Your task to perform on an android device: change notification settings in the gmail app Image 0: 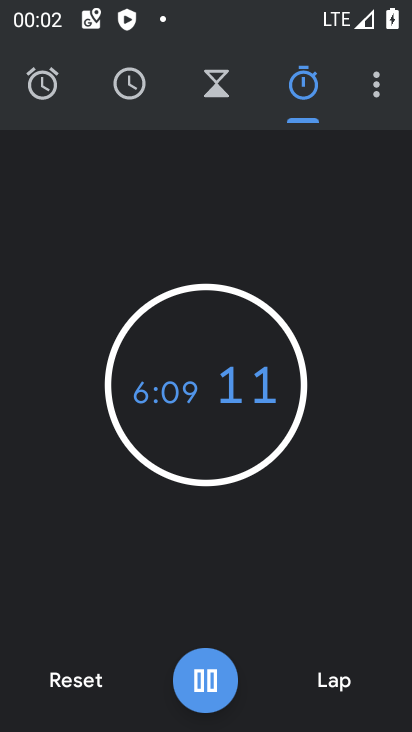
Step 0: press home button
Your task to perform on an android device: change notification settings in the gmail app Image 1: 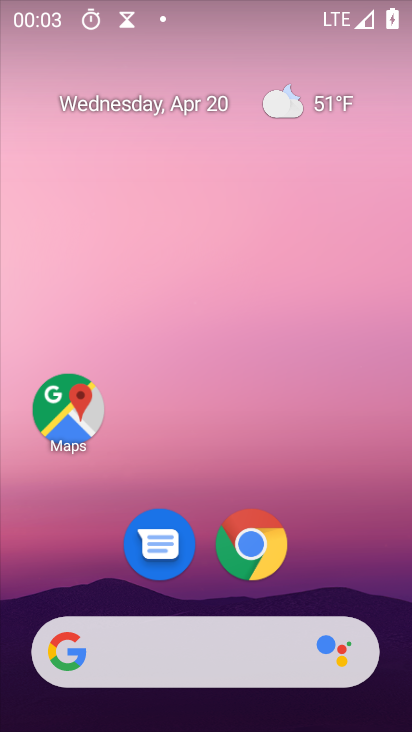
Step 1: drag from (313, 584) to (295, 138)
Your task to perform on an android device: change notification settings in the gmail app Image 2: 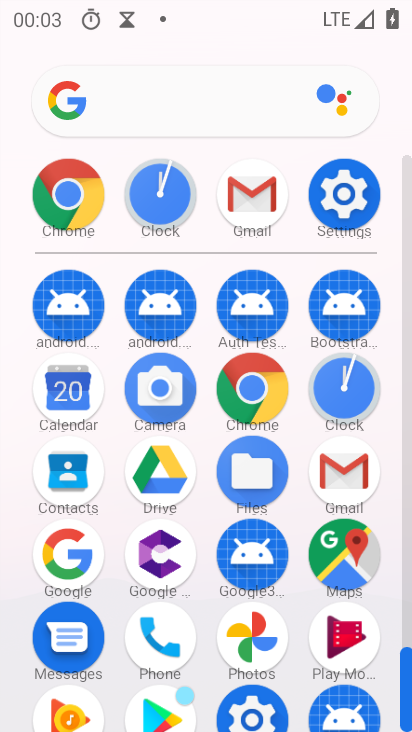
Step 2: click (338, 486)
Your task to perform on an android device: change notification settings in the gmail app Image 3: 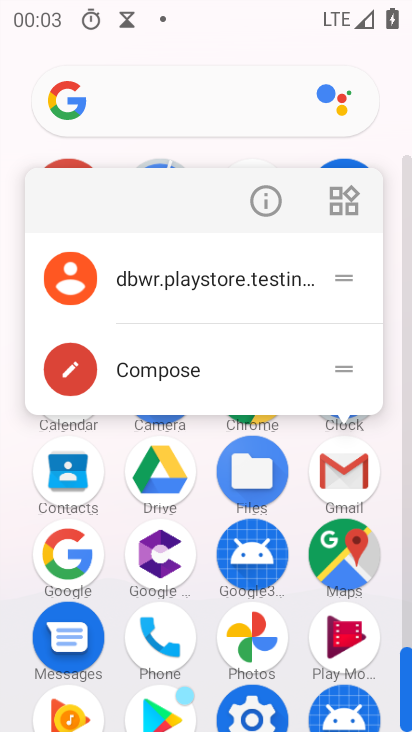
Step 3: click (339, 486)
Your task to perform on an android device: change notification settings in the gmail app Image 4: 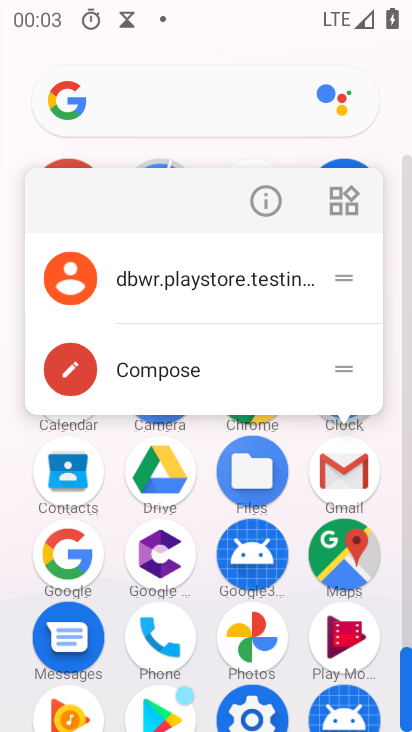
Step 4: click (353, 482)
Your task to perform on an android device: change notification settings in the gmail app Image 5: 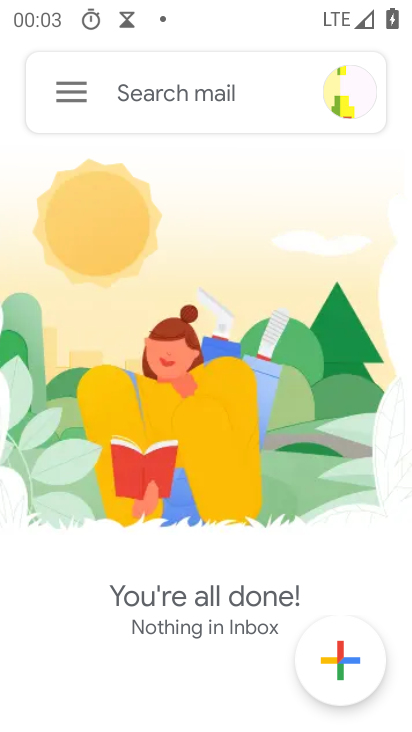
Step 5: click (60, 87)
Your task to perform on an android device: change notification settings in the gmail app Image 6: 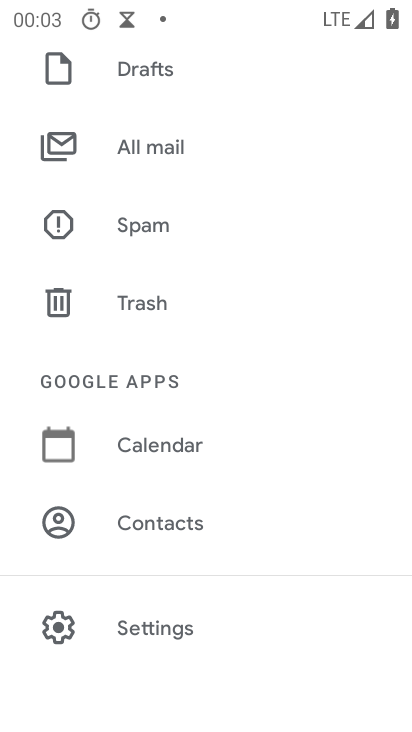
Step 6: click (121, 609)
Your task to perform on an android device: change notification settings in the gmail app Image 7: 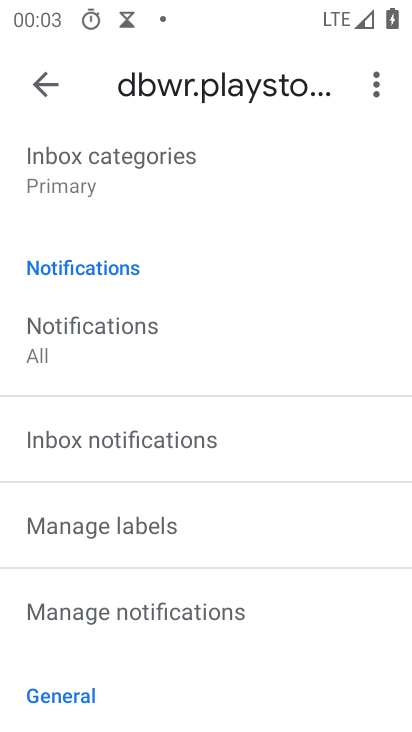
Step 7: drag from (132, 362) to (143, 398)
Your task to perform on an android device: change notification settings in the gmail app Image 8: 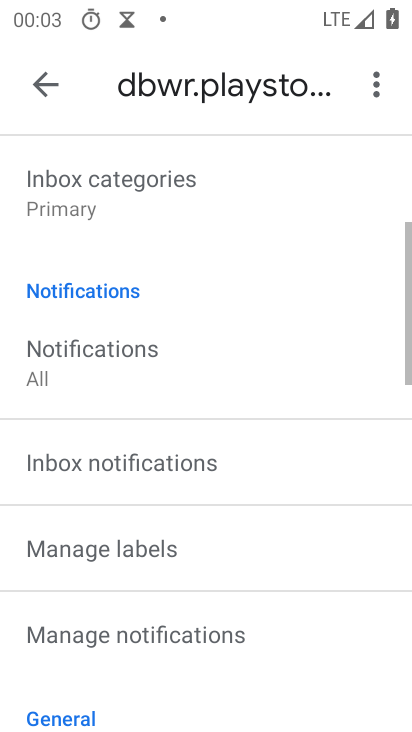
Step 8: click (150, 636)
Your task to perform on an android device: change notification settings in the gmail app Image 9: 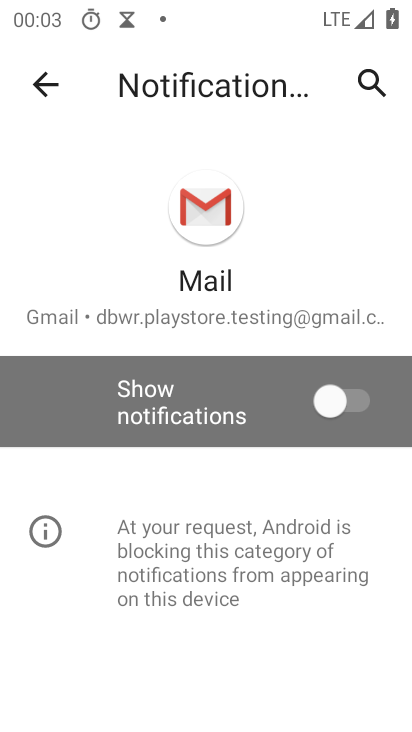
Step 9: click (330, 408)
Your task to perform on an android device: change notification settings in the gmail app Image 10: 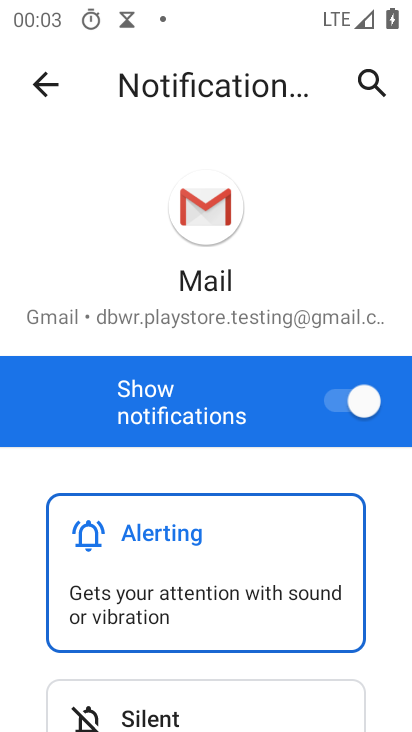
Step 10: task complete